Your task to perform on an android device: manage bookmarks in the chrome app Image 0: 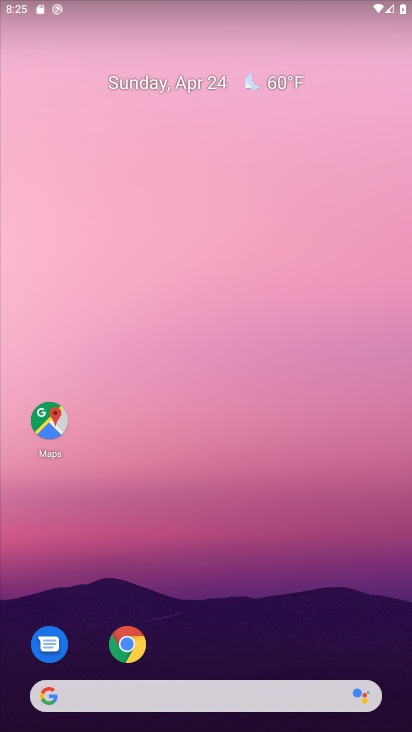
Step 0: drag from (223, 659) to (245, 111)
Your task to perform on an android device: manage bookmarks in the chrome app Image 1: 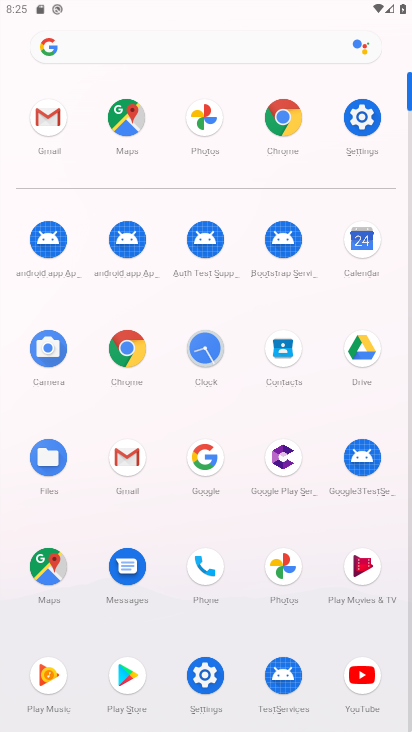
Step 1: click (125, 351)
Your task to perform on an android device: manage bookmarks in the chrome app Image 2: 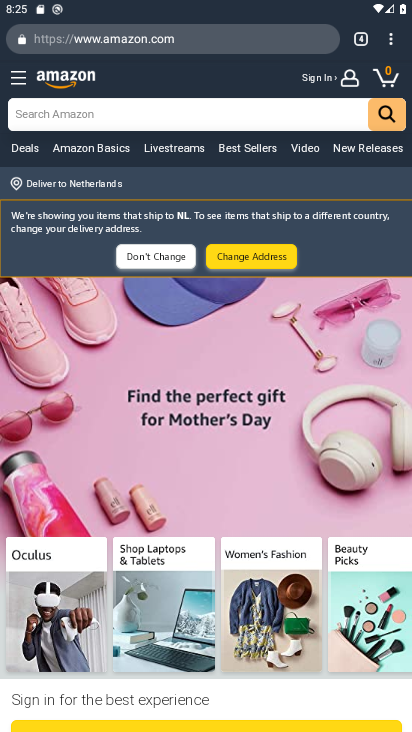
Step 2: click (389, 37)
Your task to perform on an android device: manage bookmarks in the chrome app Image 3: 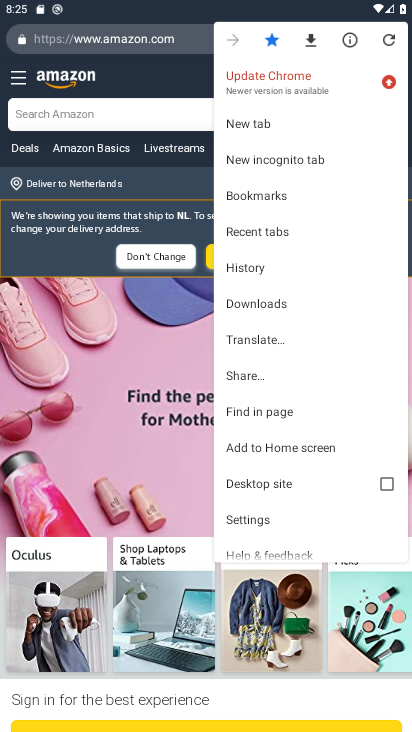
Step 3: click (293, 190)
Your task to perform on an android device: manage bookmarks in the chrome app Image 4: 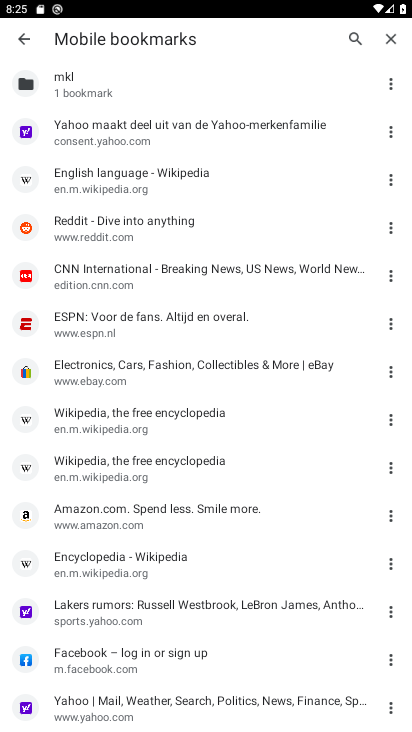
Step 4: click (388, 320)
Your task to perform on an android device: manage bookmarks in the chrome app Image 5: 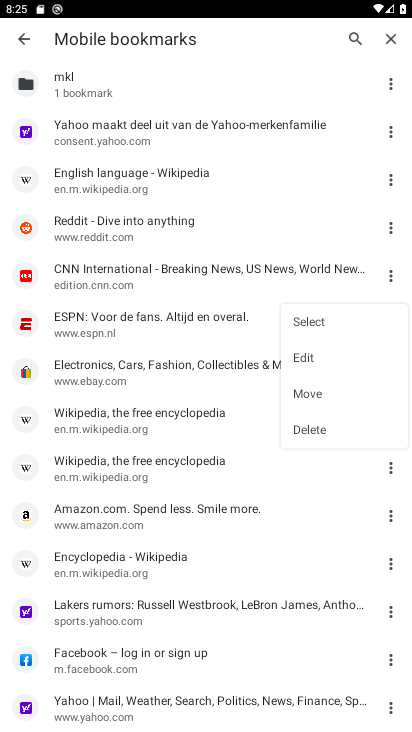
Step 5: click (333, 433)
Your task to perform on an android device: manage bookmarks in the chrome app Image 6: 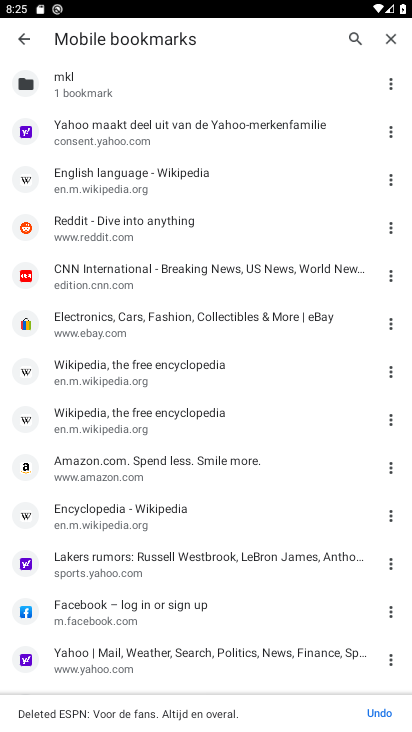
Step 6: task complete